Your task to perform on an android device: toggle priority inbox in the gmail app Image 0: 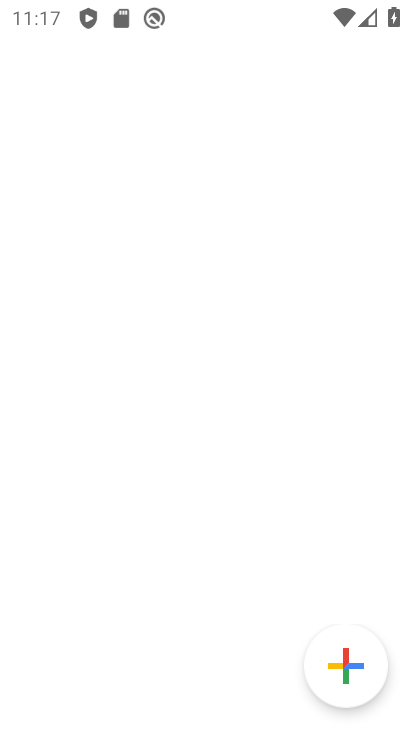
Step 0: drag from (229, 606) to (279, 74)
Your task to perform on an android device: toggle priority inbox in the gmail app Image 1: 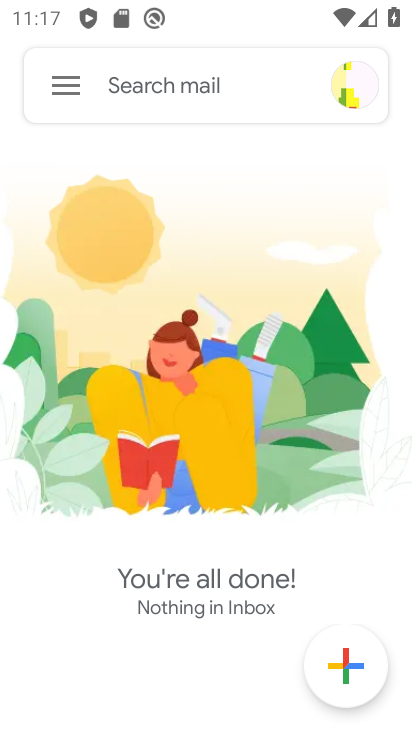
Step 1: click (63, 76)
Your task to perform on an android device: toggle priority inbox in the gmail app Image 2: 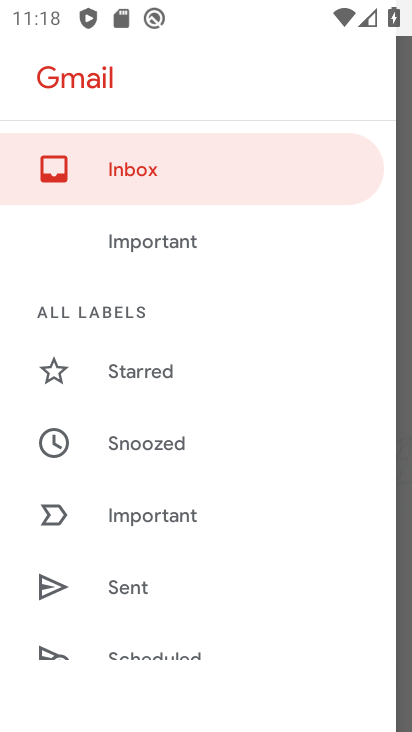
Step 2: drag from (273, 619) to (292, 240)
Your task to perform on an android device: toggle priority inbox in the gmail app Image 3: 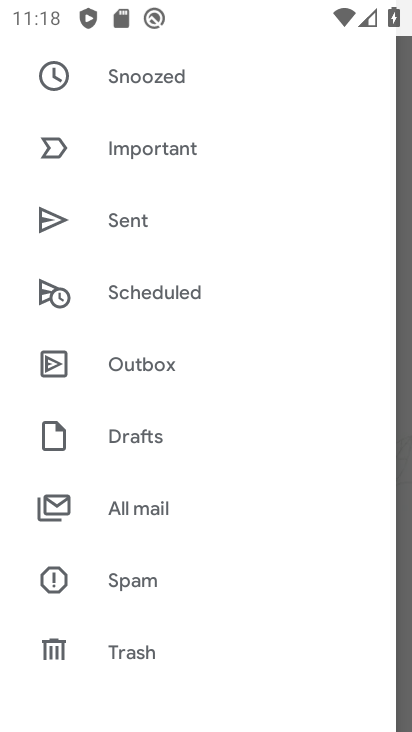
Step 3: drag from (170, 628) to (168, 221)
Your task to perform on an android device: toggle priority inbox in the gmail app Image 4: 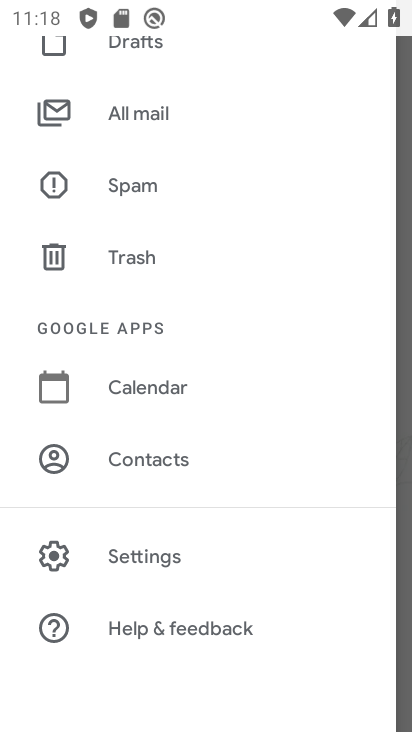
Step 4: click (154, 570)
Your task to perform on an android device: toggle priority inbox in the gmail app Image 5: 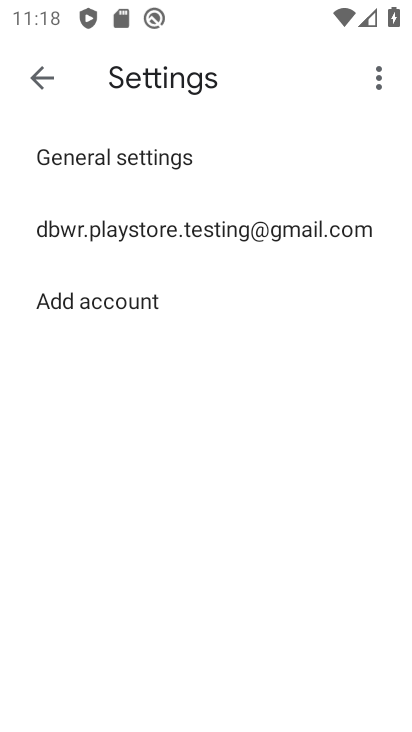
Step 5: click (161, 245)
Your task to perform on an android device: toggle priority inbox in the gmail app Image 6: 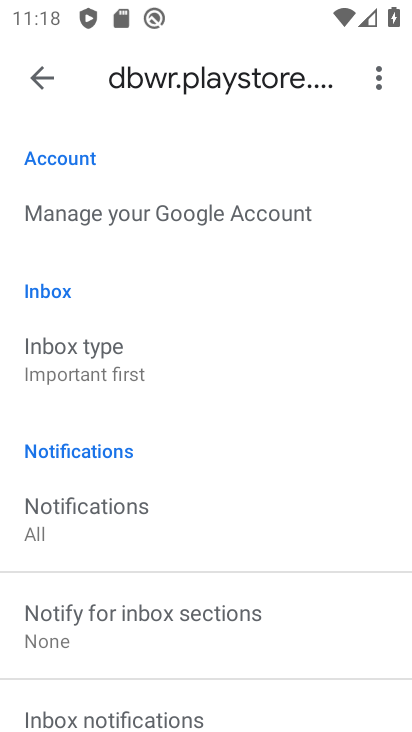
Step 6: click (137, 365)
Your task to perform on an android device: toggle priority inbox in the gmail app Image 7: 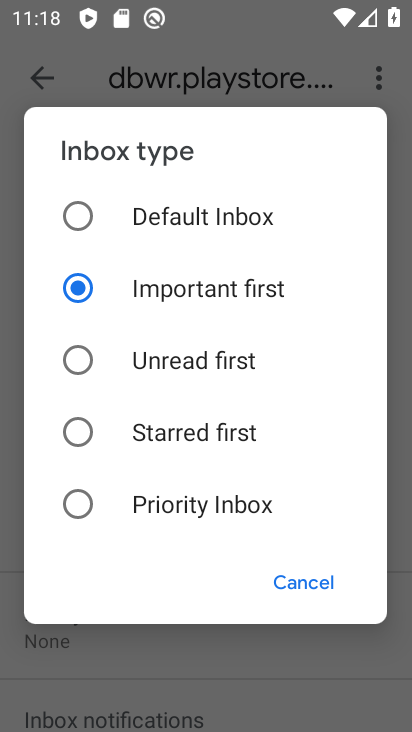
Step 7: click (184, 506)
Your task to perform on an android device: toggle priority inbox in the gmail app Image 8: 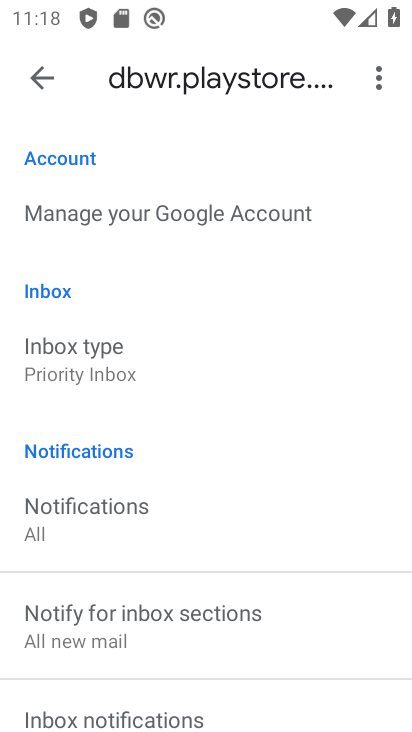
Step 8: task complete